Your task to perform on an android device: Go to wifi settings Image 0: 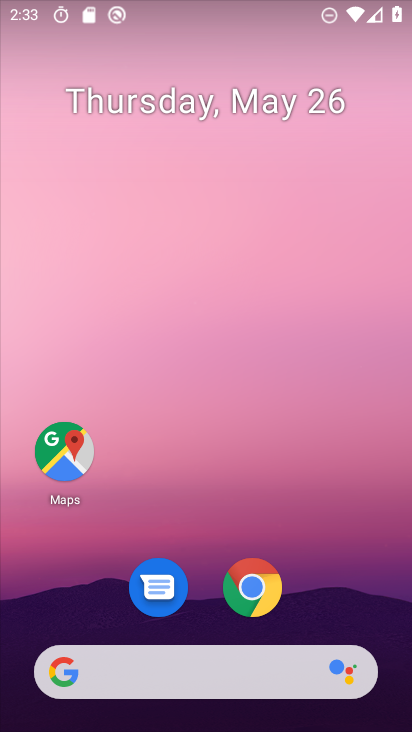
Step 0: drag from (322, 501) to (325, 161)
Your task to perform on an android device: Go to wifi settings Image 1: 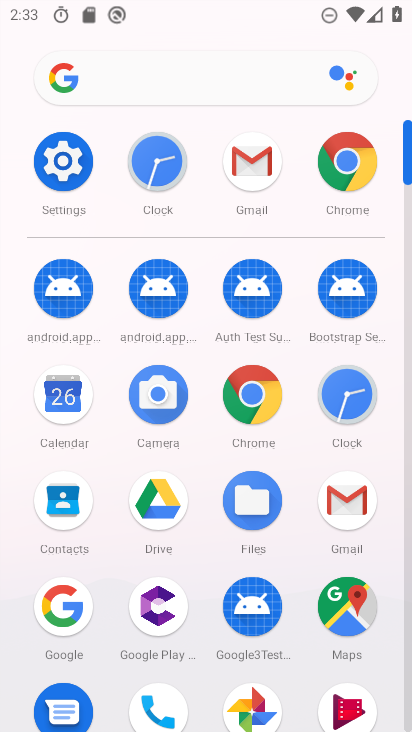
Step 1: click (65, 183)
Your task to perform on an android device: Go to wifi settings Image 2: 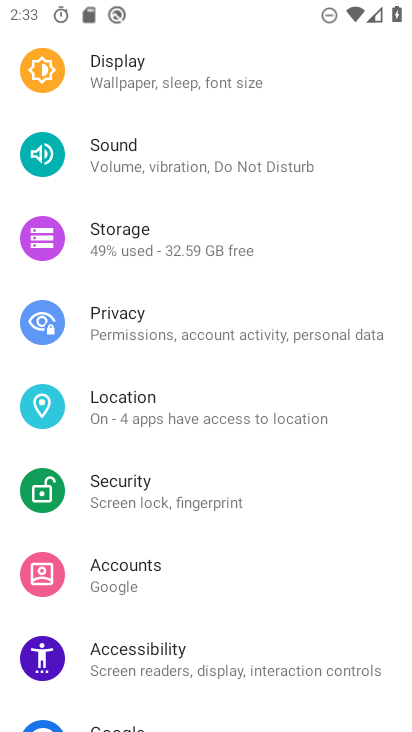
Step 2: drag from (221, 153) to (216, 543)
Your task to perform on an android device: Go to wifi settings Image 3: 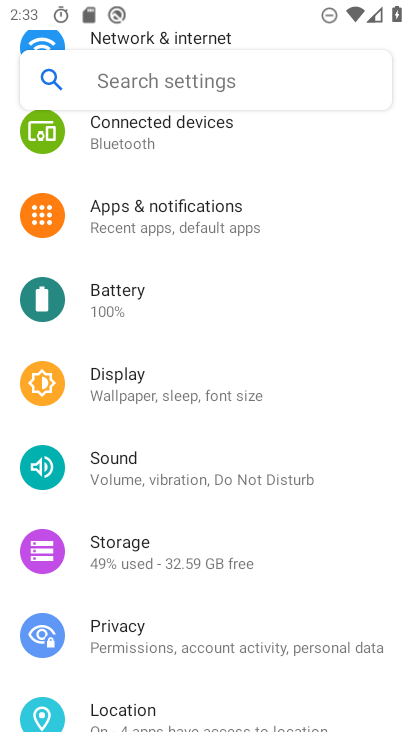
Step 3: drag from (204, 249) to (178, 587)
Your task to perform on an android device: Go to wifi settings Image 4: 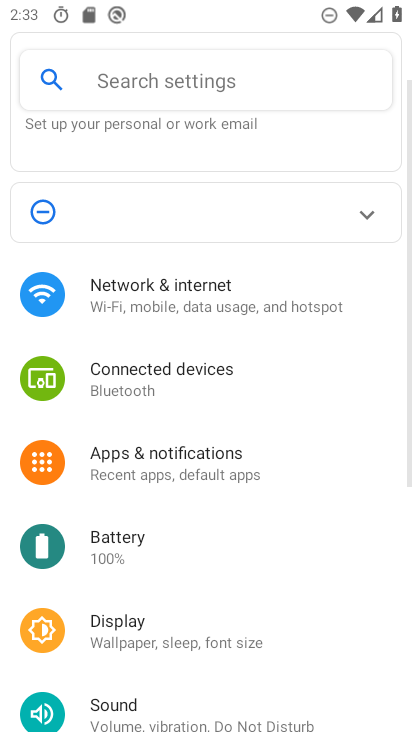
Step 4: click (166, 320)
Your task to perform on an android device: Go to wifi settings Image 5: 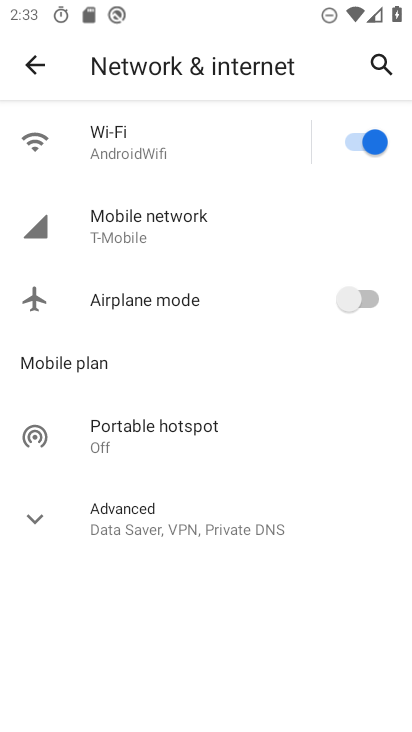
Step 5: click (212, 143)
Your task to perform on an android device: Go to wifi settings Image 6: 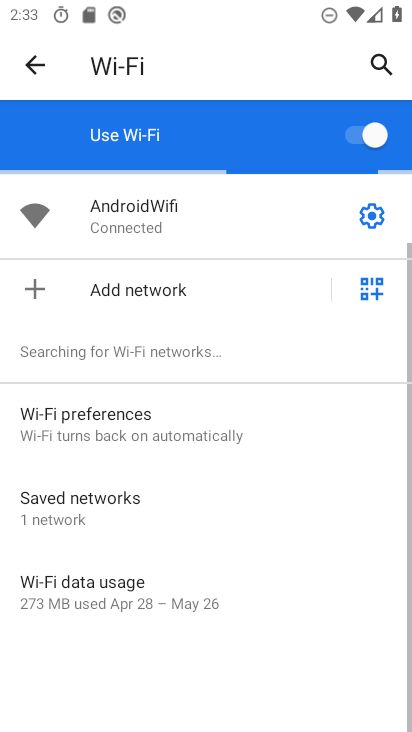
Step 6: click (367, 208)
Your task to perform on an android device: Go to wifi settings Image 7: 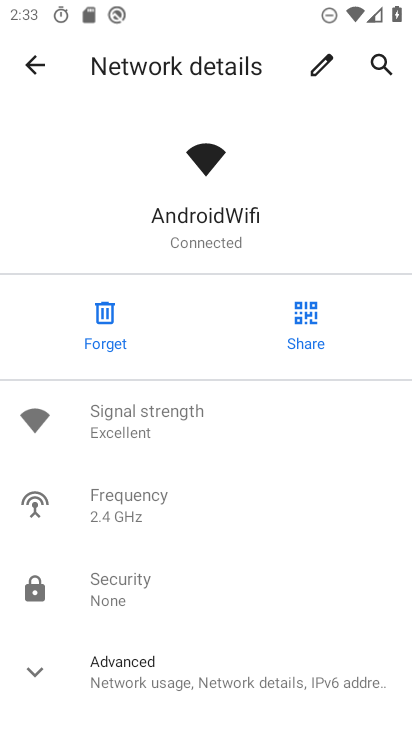
Step 7: task complete